Your task to perform on an android device: change your default location settings in chrome Image 0: 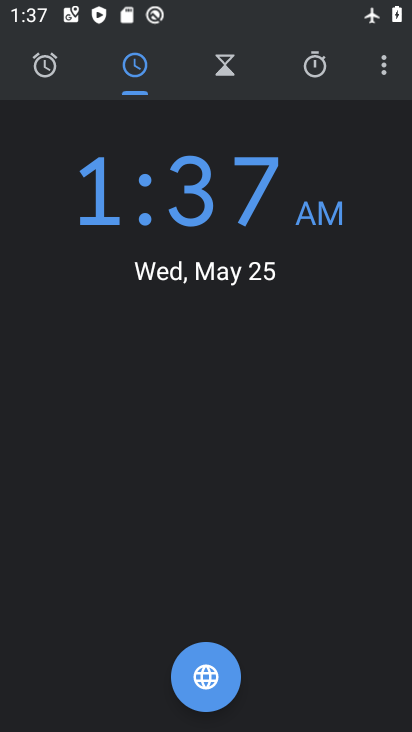
Step 0: press home button
Your task to perform on an android device: change your default location settings in chrome Image 1: 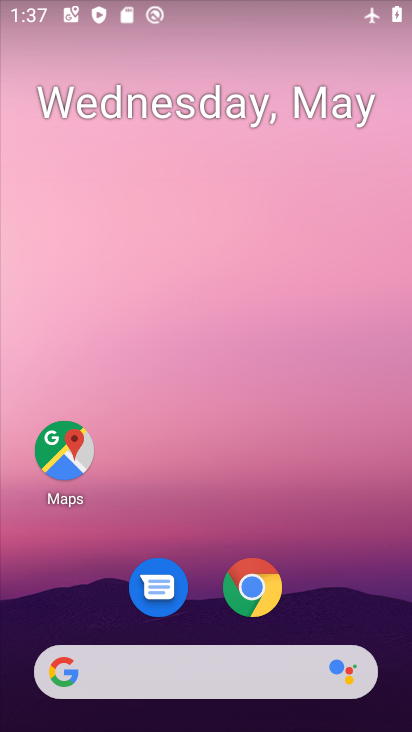
Step 1: click (264, 615)
Your task to perform on an android device: change your default location settings in chrome Image 2: 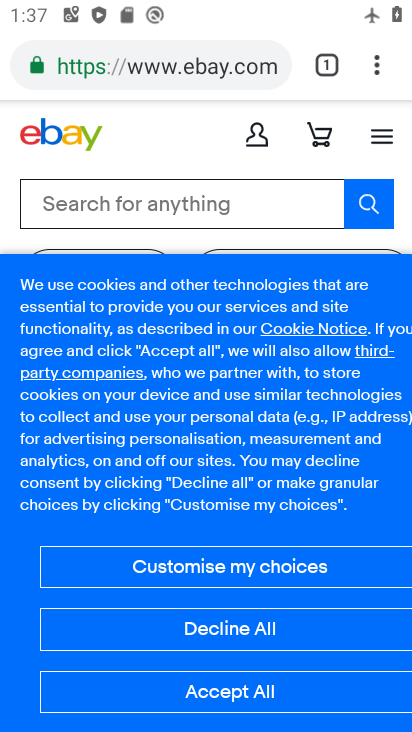
Step 2: click (377, 78)
Your task to perform on an android device: change your default location settings in chrome Image 3: 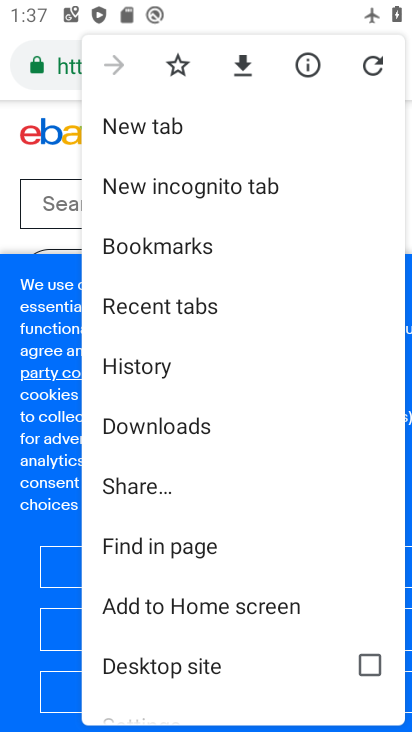
Step 3: drag from (246, 662) to (229, 393)
Your task to perform on an android device: change your default location settings in chrome Image 4: 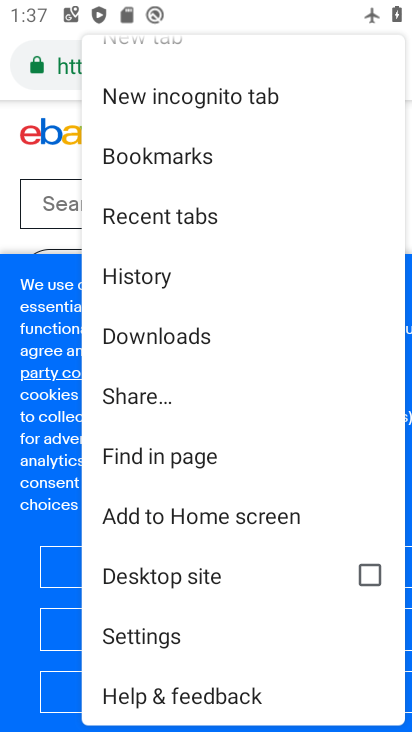
Step 4: click (179, 643)
Your task to perform on an android device: change your default location settings in chrome Image 5: 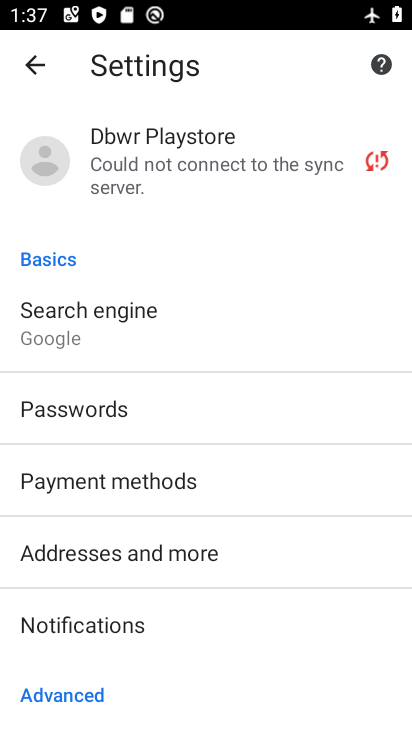
Step 5: drag from (180, 601) to (151, 235)
Your task to perform on an android device: change your default location settings in chrome Image 6: 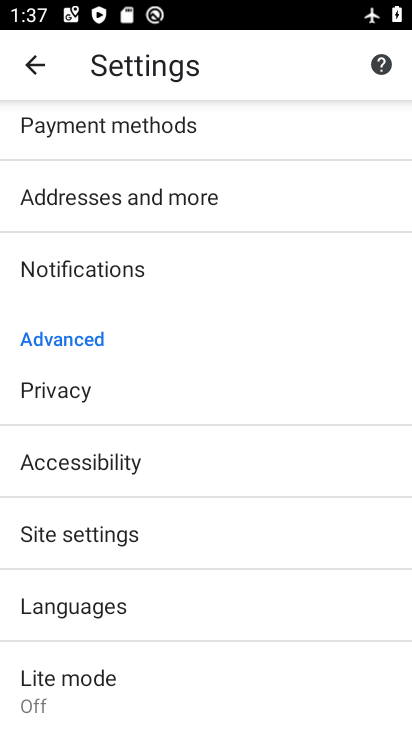
Step 6: click (145, 538)
Your task to perform on an android device: change your default location settings in chrome Image 7: 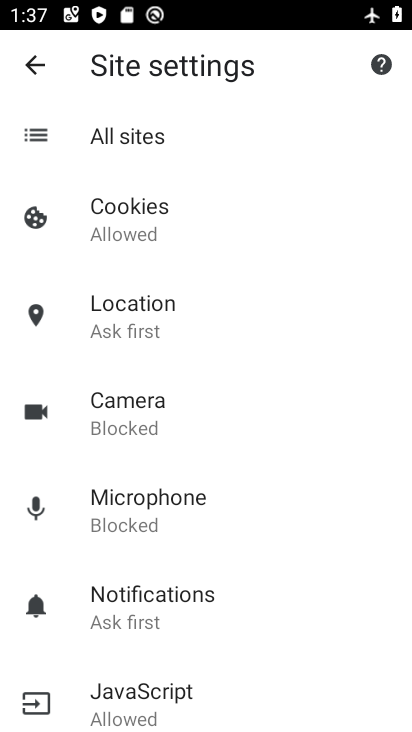
Step 7: click (163, 321)
Your task to perform on an android device: change your default location settings in chrome Image 8: 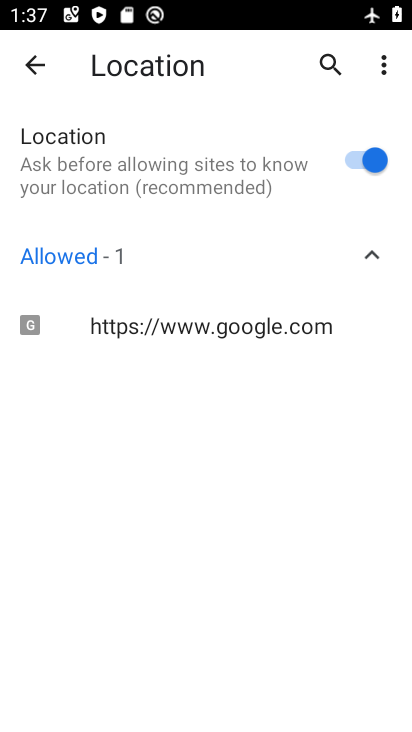
Step 8: click (376, 176)
Your task to perform on an android device: change your default location settings in chrome Image 9: 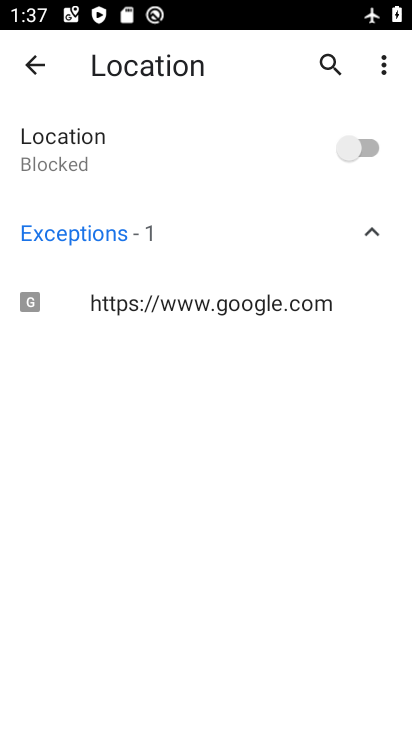
Step 9: task complete